Your task to perform on an android device: toggle pop-ups in chrome Image 0: 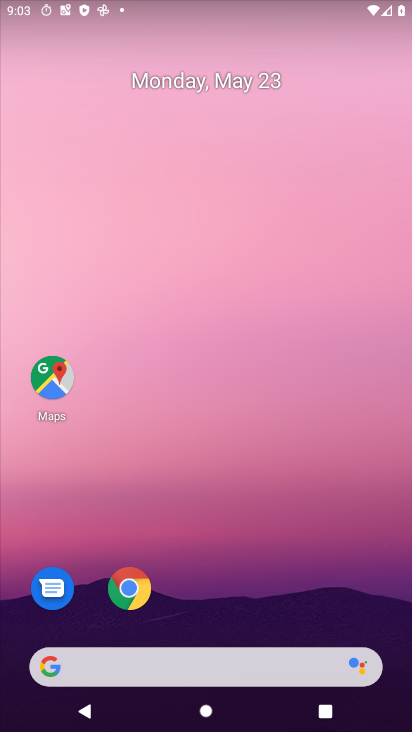
Step 0: click (123, 580)
Your task to perform on an android device: toggle pop-ups in chrome Image 1: 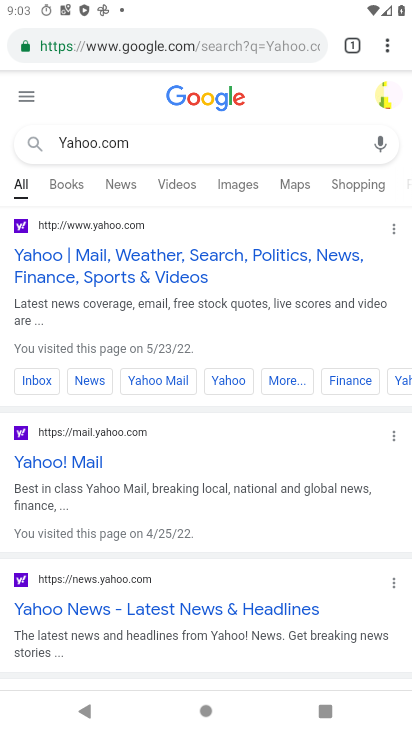
Step 1: press home button
Your task to perform on an android device: toggle pop-ups in chrome Image 2: 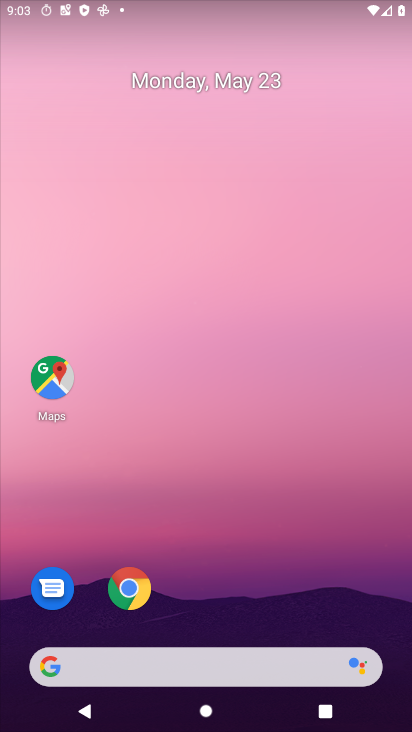
Step 2: click (130, 595)
Your task to perform on an android device: toggle pop-ups in chrome Image 3: 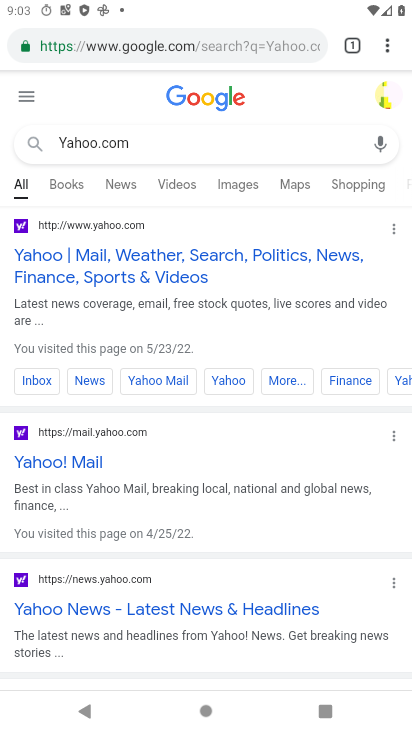
Step 3: click (383, 38)
Your task to perform on an android device: toggle pop-ups in chrome Image 4: 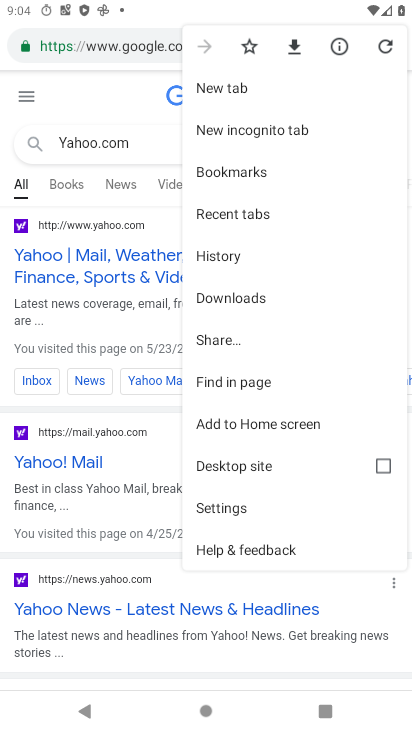
Step 4: click (211, 503)
Your task to perform on an android device: toggle pop-ups in chrome Image 5: 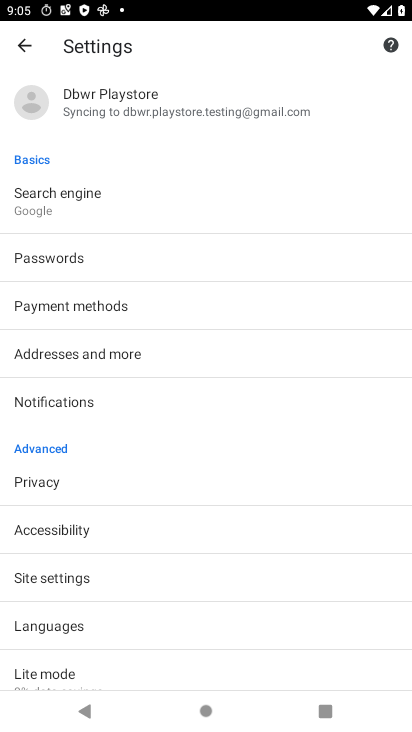
Step 5: click (58, 577)
Your task to perform on an android device: toggle pop-ups in chrome Image 6: 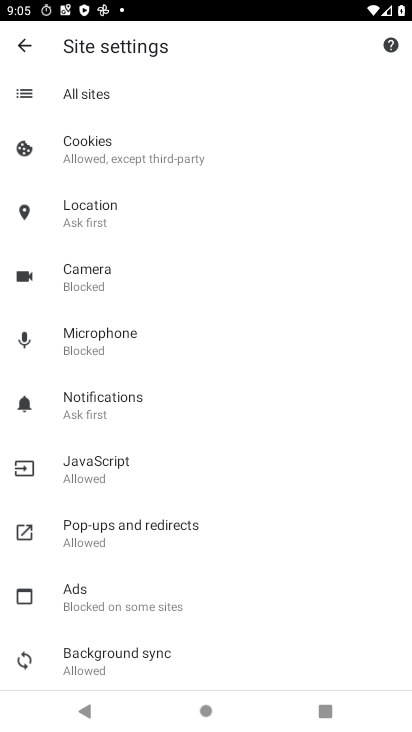
Step 6: click (111, 526)
Your task to perform on an android device: toggle pop-ups in chrome Image 7: 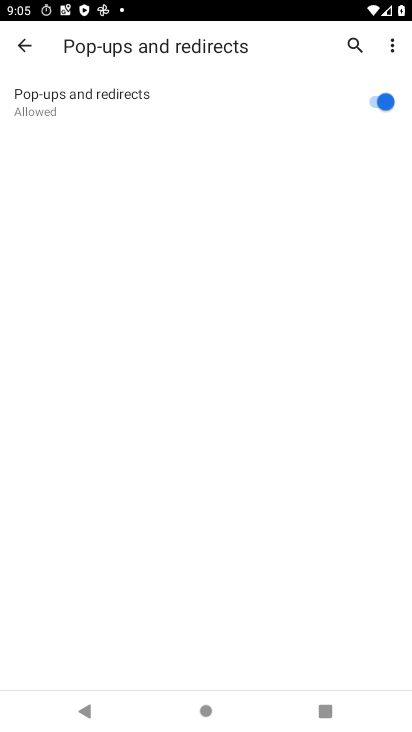
Step 7: click (374, 97)
Your task to perform on an android device: toggle pop-ups in chrome Image 8: 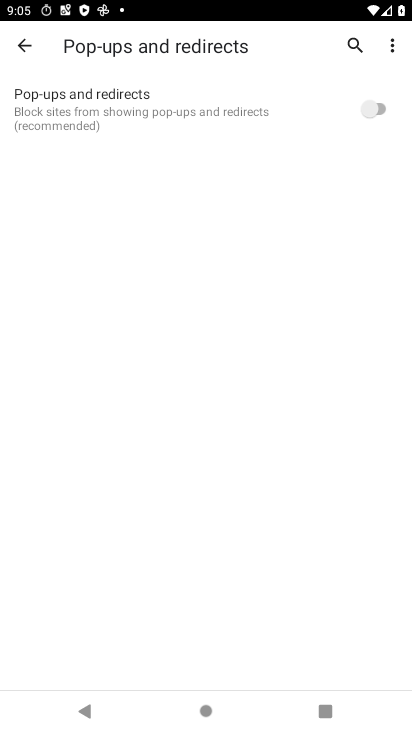
Step 8: task complete